Your task to perform on an android device: Go to wifi settings Image 0: 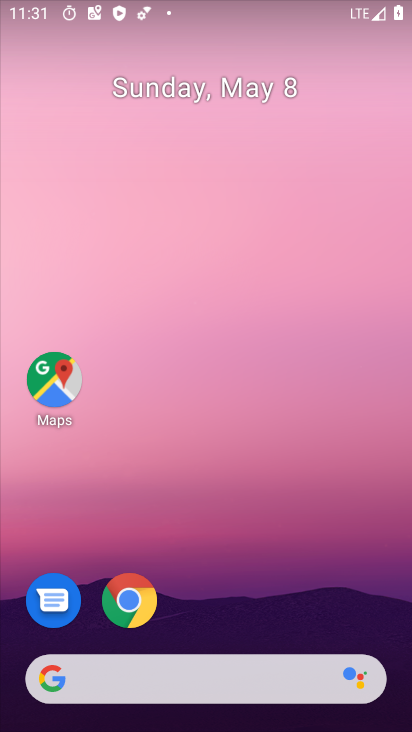
Step 0: drag from (287, 581) to (315, 246)
Your task to perform on an android device: Go to wifi settings Image 1: 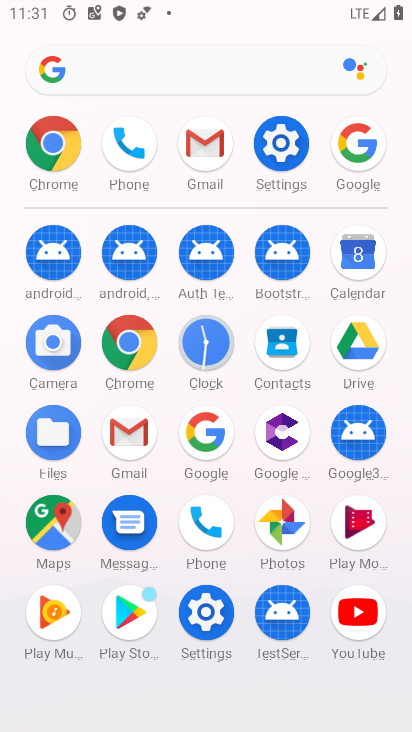
Step 1: click (302, 158)
Your task to perform on an android device: Go to wifi settings Image 2: 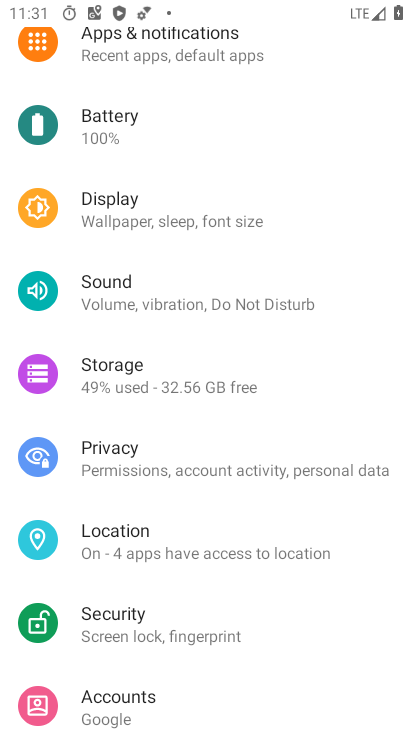
Step 2: drag from (202, 482) to (213, 188)
Your task to perform on an android device: Go to wifi settings Image 3: 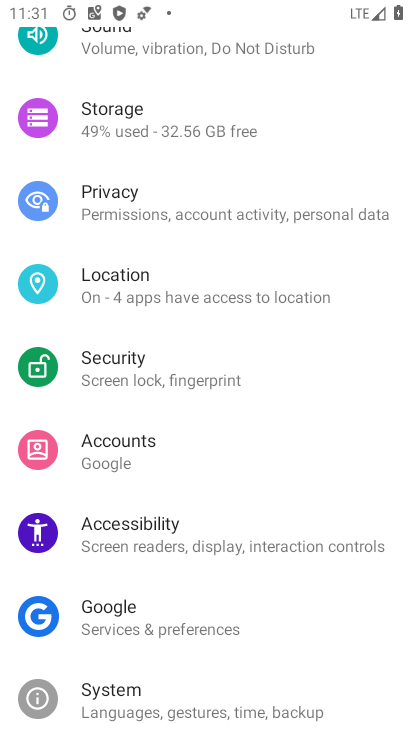
Step 3: drag from (170, 512) to (224, 693)
Your task to perform on an android device: Go to wifi settings Image 4: 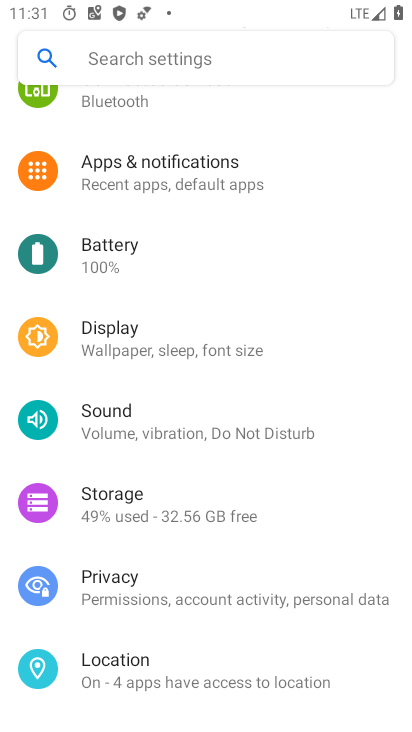
Step 4: drag from (218, 220) to (277, 710)
Your task to perform on an android device: Go to wifi settings Image 5: 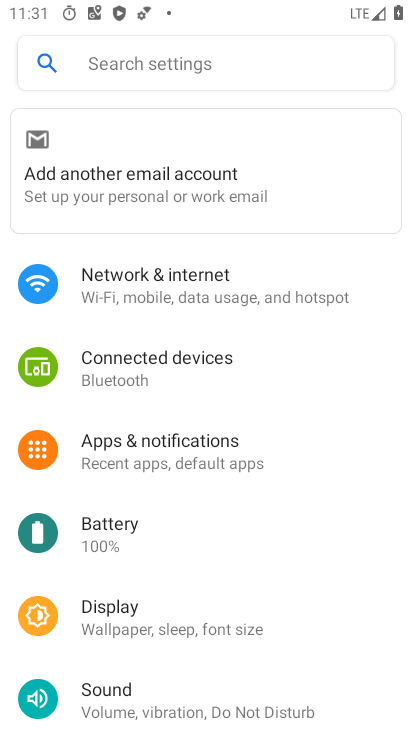
Step 5: click (234, 305)
Your task to perform on an android device: Go to wifi settings Image 6: 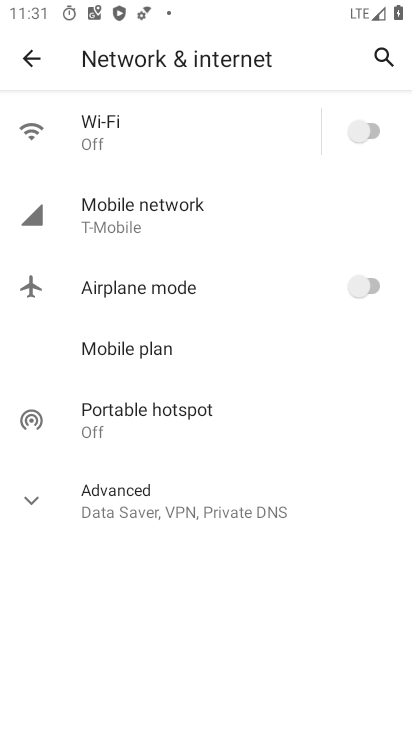
Step 6: click (179, 152)
Your task to perform on an android device: Go to wifi settings Image 7: 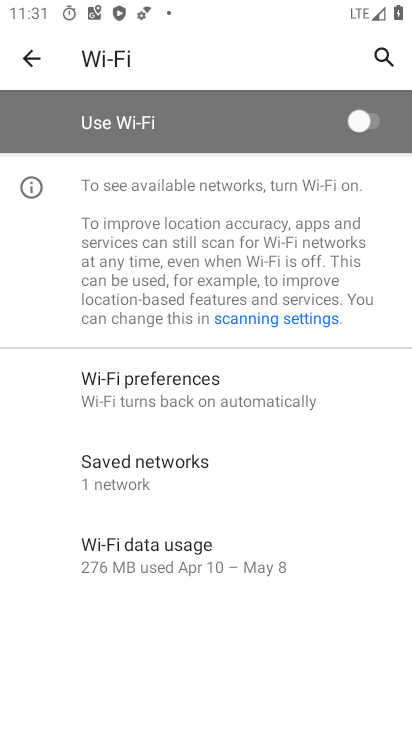
Step 7: task complete